Your task to perform on an android device: find snoozed emails in the gmail app Image 0: 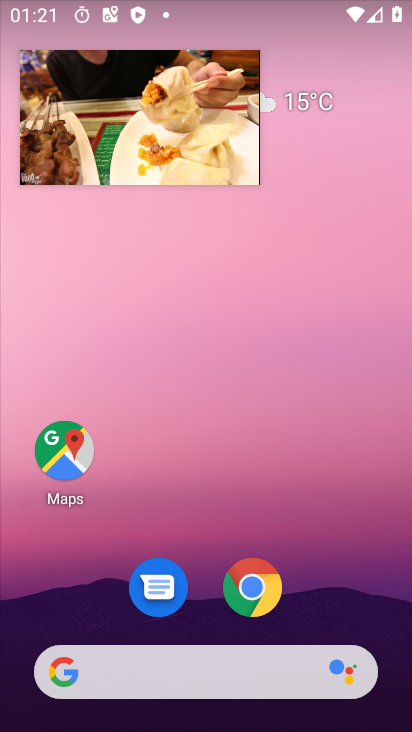
Step 0: drag from (374, 568) to (332, 249)
Your task to perform on an android device: find snoozed emails in the gmail app Image 1: 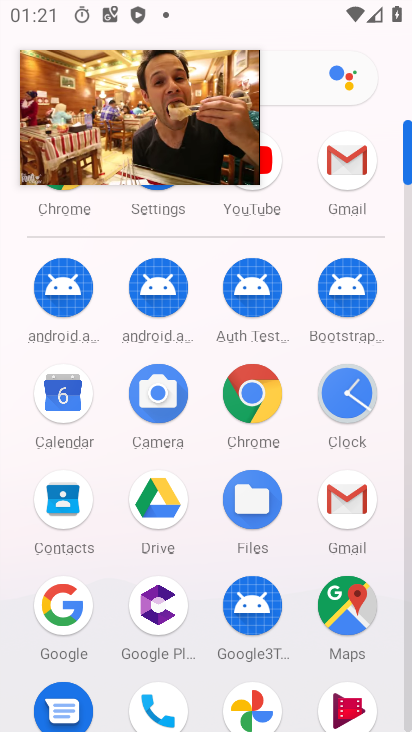
Step 1: click (354, 503)
Your task to perform on an android device: find snoozed emails in the gmail app Image 2: 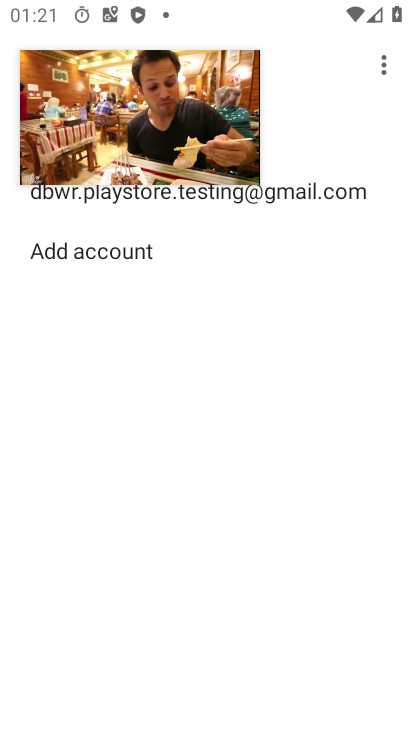
Step 2: drag from (131, 99) to (340, 493)
Your task to perform on an android device: find snoozed emails in the gmail app Image 3: 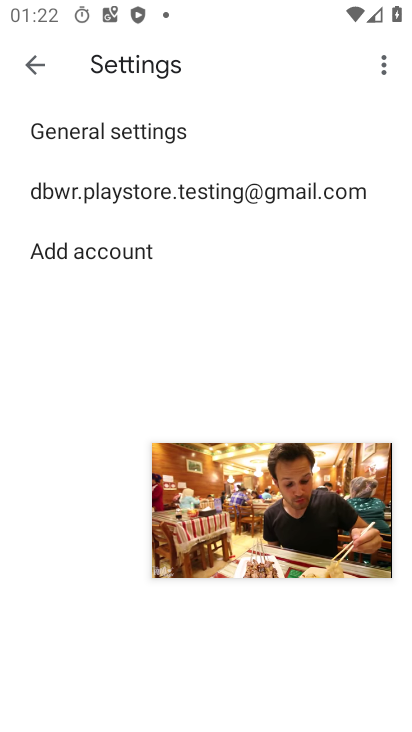
Step 3: drag from (244, 479) to (410, 501)
Your task to perform on an android device: find snoozed emails in the gmail app Image 4: 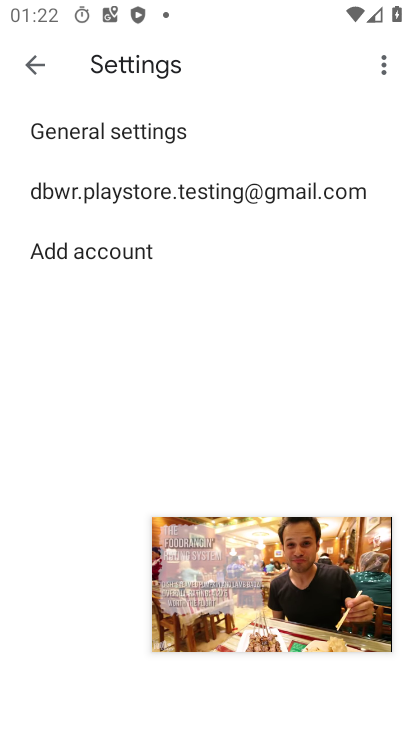
Step 4: drag from (260, 594) to (285, 729)
Your task to perform on an android device: find snoozed emails in the gmail app Image 5: 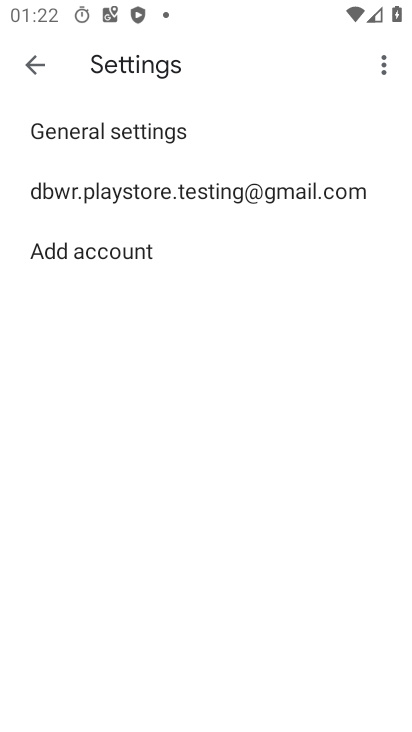
Step 5: click (217, 623)
Your task to perform on an android device: find snoozed emails in the gmail app Image 6: 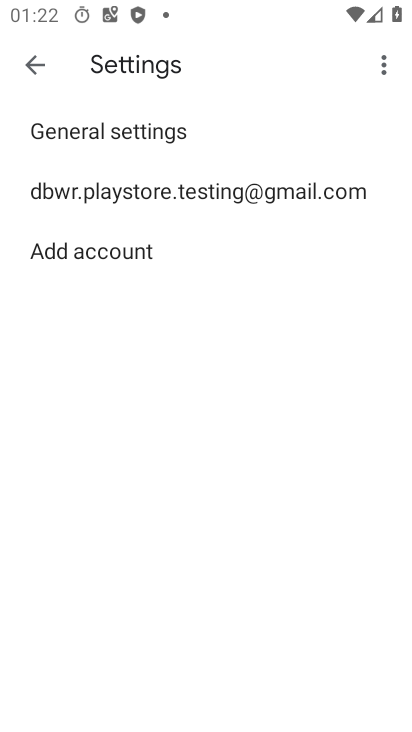
Step 6: click (34, 66)
Your task to perform on an android device: find snoozed emails in the gmail app Image 7: 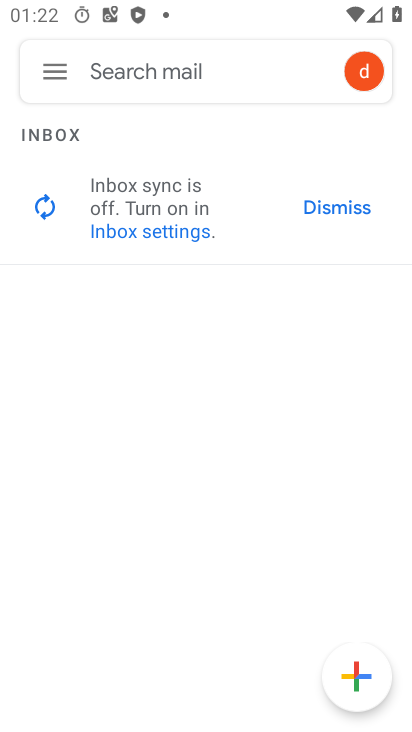
Step 7: click (47, 73)
Your task to perform on an android device: find snoozed emails in the gmail app Image 8: 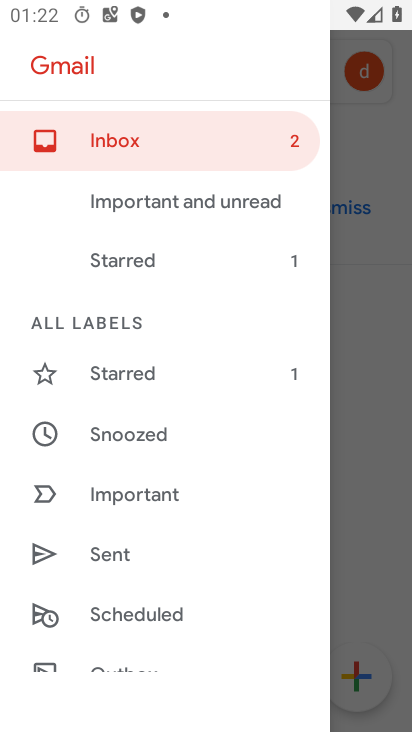
Step 8: click (117, 432)
Your task to perform on an android device: find snoozed emails in the gmail app Image 9: 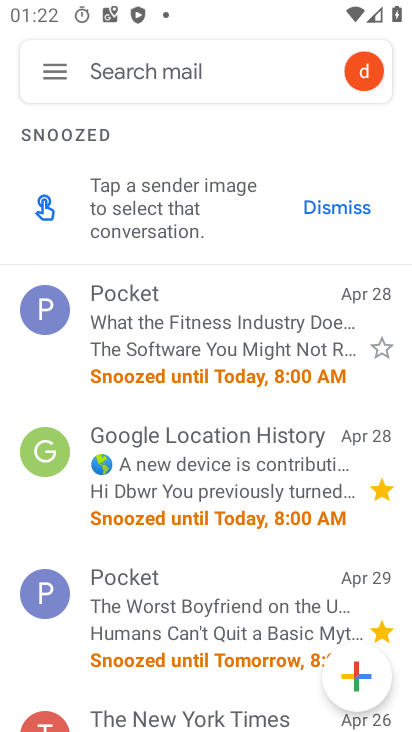
Step 9: task complete